Your task to perform on an android device: Is it going to rain today? Image 0: 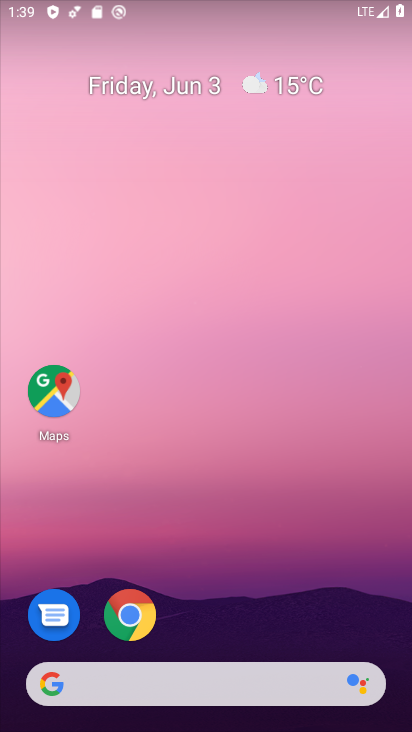
Step 0: click (196, 198)
Your task to perform on an android device: Is it going to rain today? Image 1: 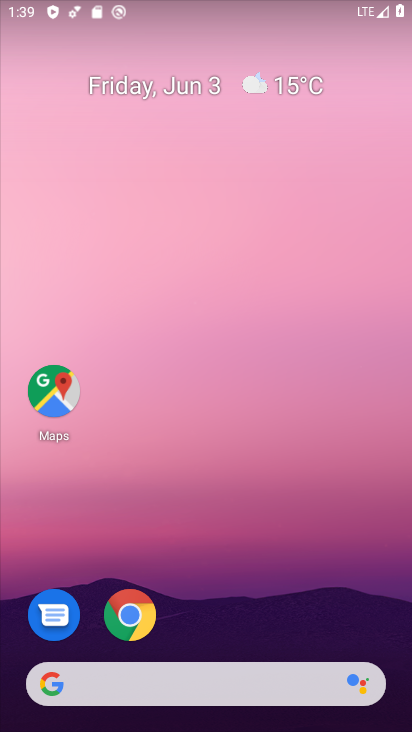
Step 1: drag from (181, 382) to (192, 193)
Your task to perform on an android device: Is it going to rain today? Image 2: 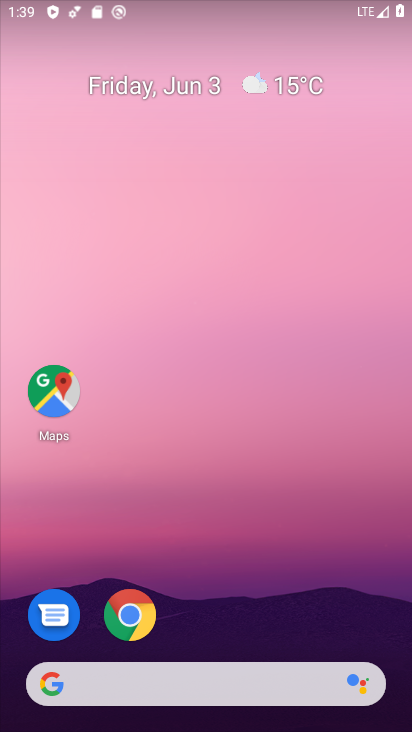
Step 2: drag from (175, 536) to (175, 191)
Your task to perform on an android device: Is it going to rain today? Image 3: 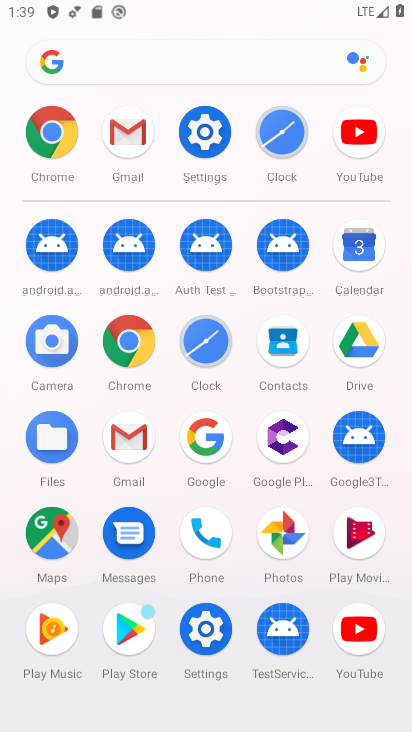
Step 3: click (125, 81)
Your task to perform on an android device: Is it going to rain today? Image 4: 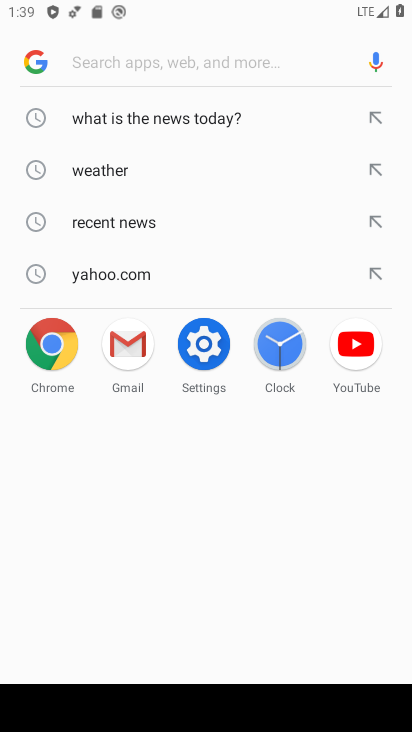
Step 4: type "rain today?"
Your task to perform on an android device: Is it going to rain today? Image 5: 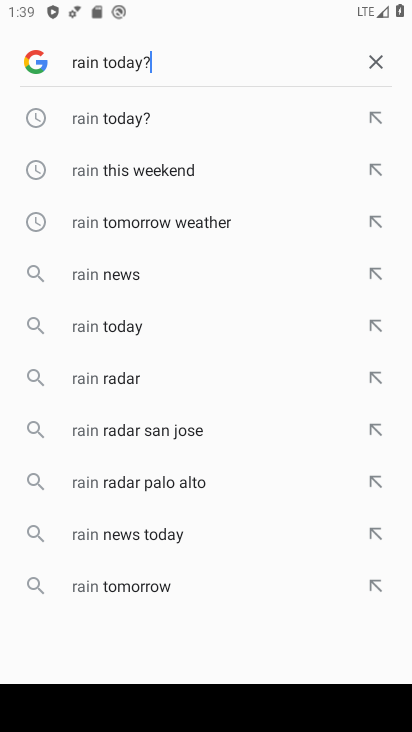
Step 5: type ""
Your task to perform on an android device: Is it going to rain today? Image 6: 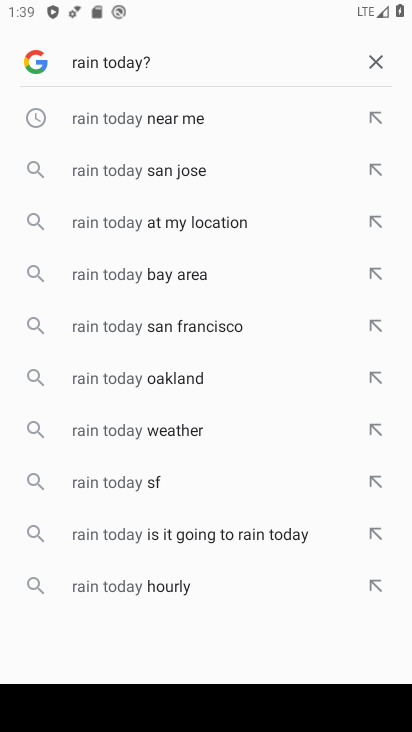
Step 6: click (154, 113)
Your task to perform on an android device: Is it going to rain today? Image 7: 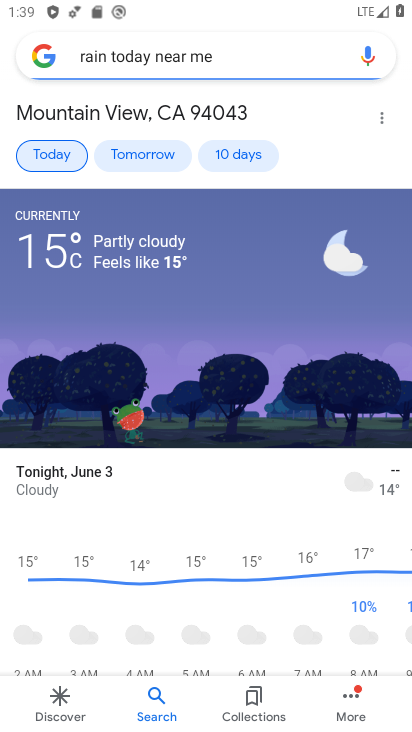
Step 7: task complete